Your task to perform on an android device: Open calendar and show me the second week of next month Image 0: 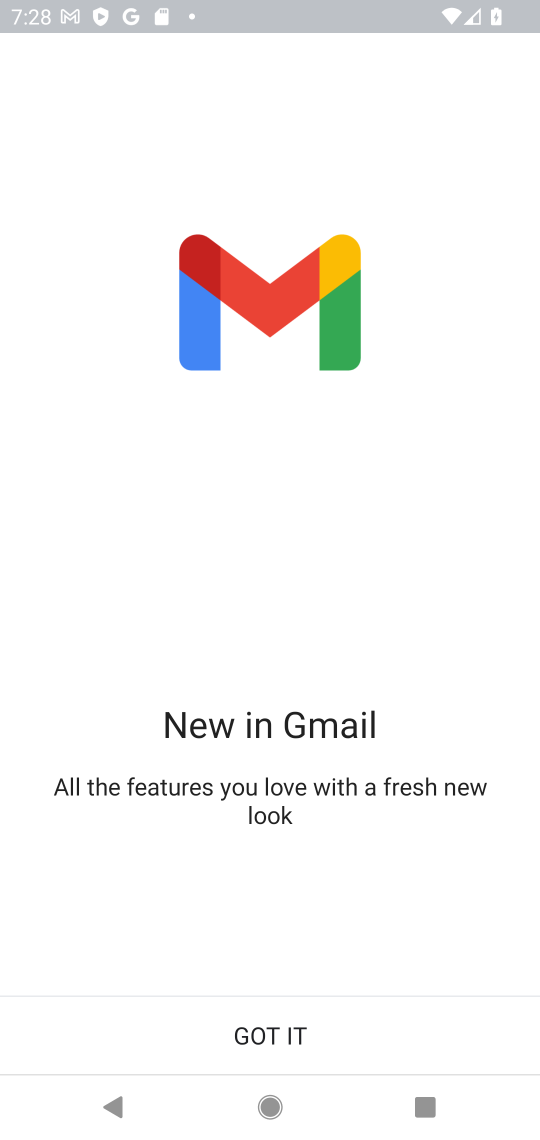
Step 0: click (271, 1030)
Your task to perform on an android device: Open calendar and show me the second week of next month Image 1: 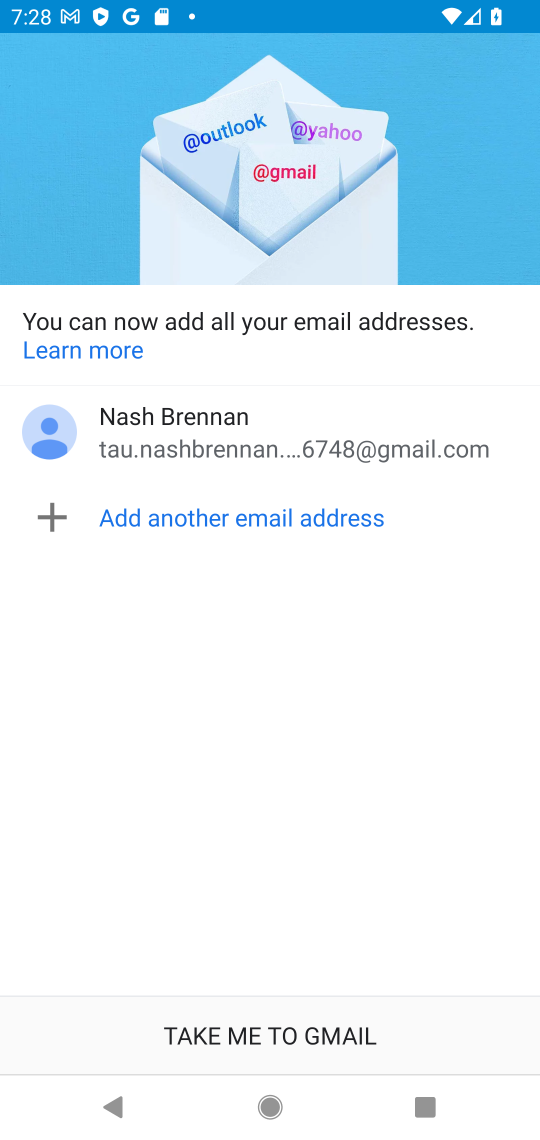
Step 1: click (271, 1030)
Your task to perform on an android device: Open calendar and show me the second week of next month Image 2: 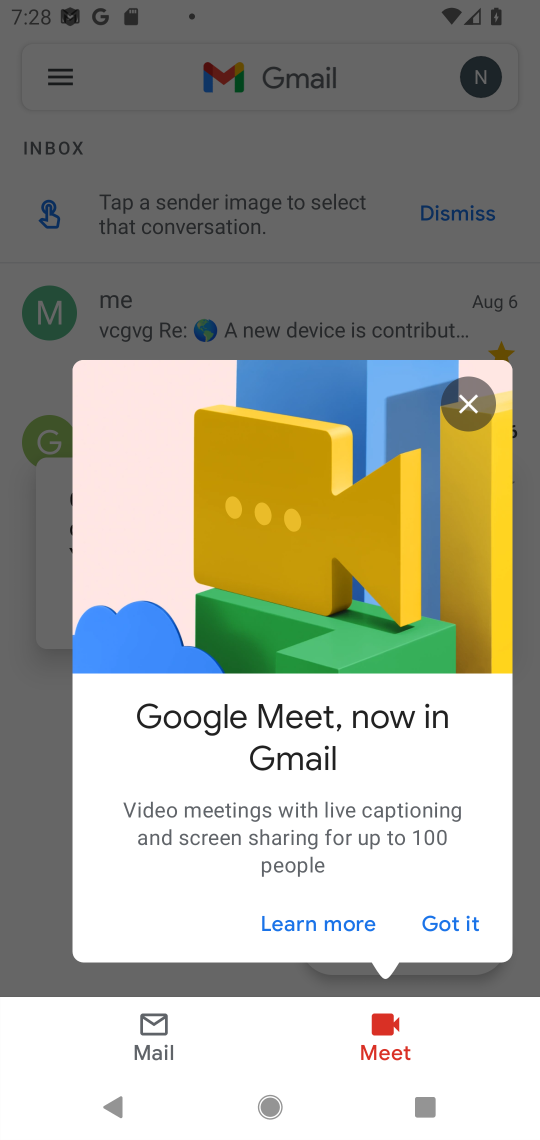
Step 2: click (459, 913)
Your task to perform on an android device: Open calendar and show me the second week of next month Image 3: 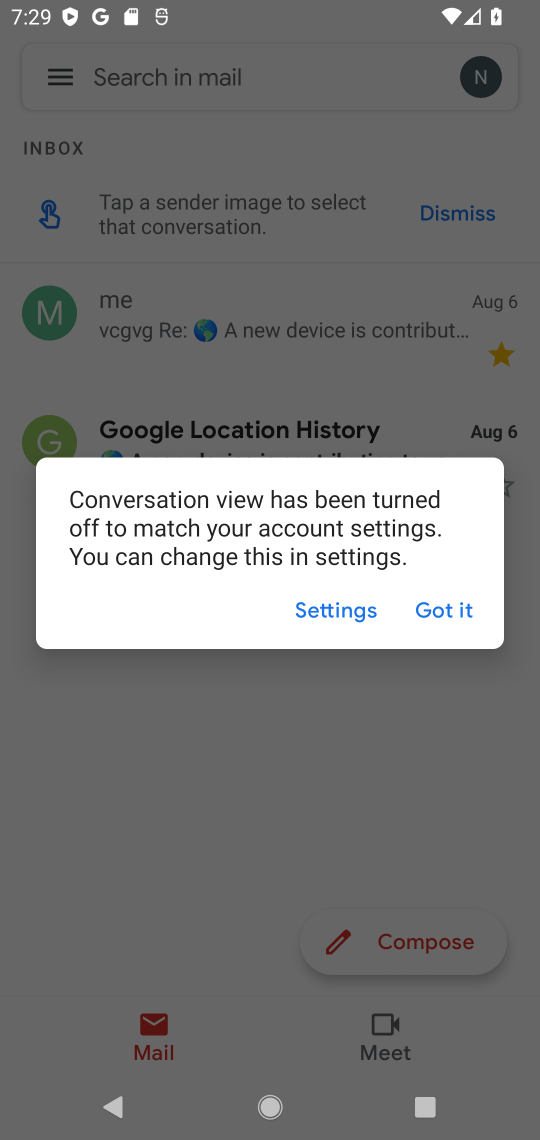
Step 3: press home button
Your task to perform on an android device: Open calendar and show me the second week of next month Image 4: 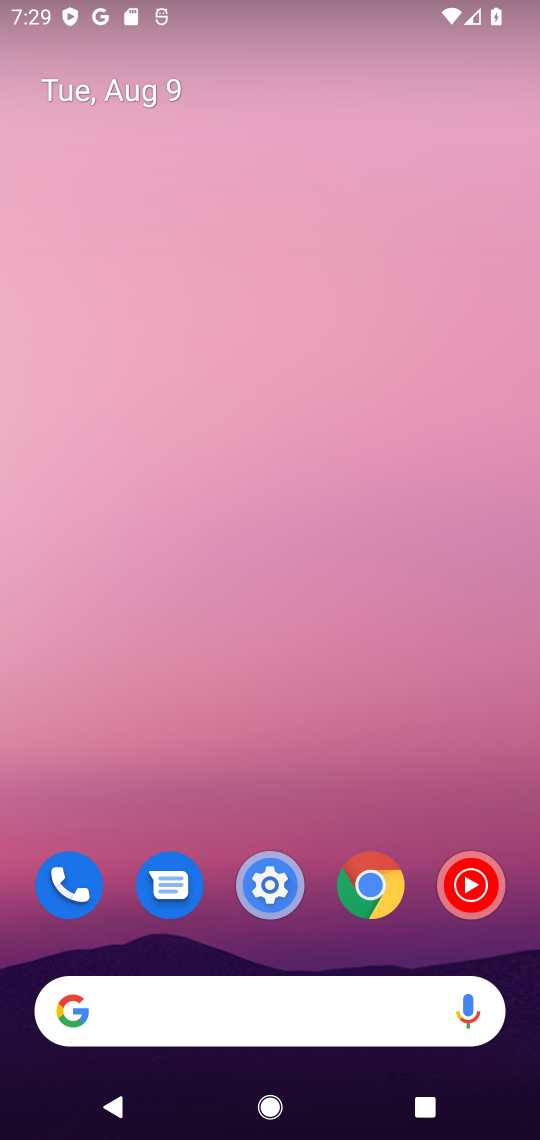
Step 4: drag from (121, 772) to (214, 229)
Your task to perform on an android device: Open calendar and show me the second week of next month Image 5: 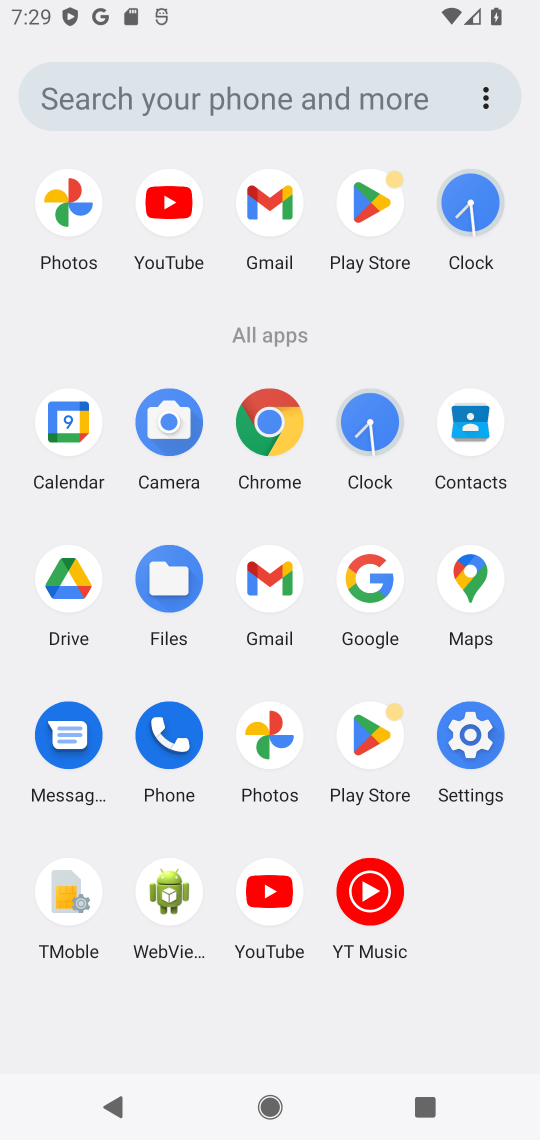
Step 5: click (449, 419)
Your task to perform on an android device: Open calendar and show me the second week of next month Image 6: 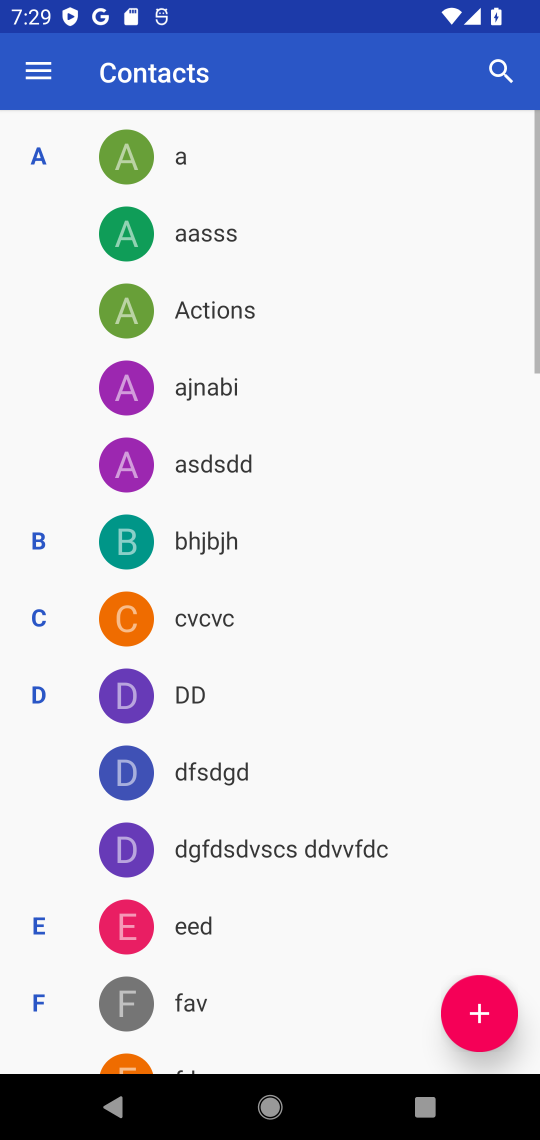
Step 6: task complete